Your task to perform on an android device: install app "Nova Launcher" Image 0: 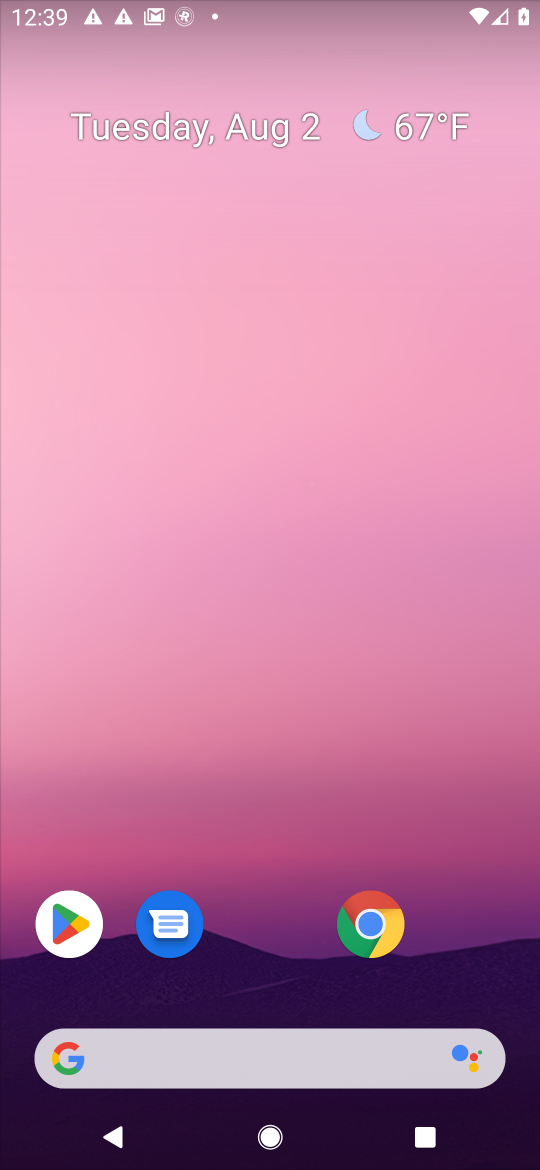
Step 0: press home button
Your task to perform on an android device: install app "Nova Launcher" Image 1: 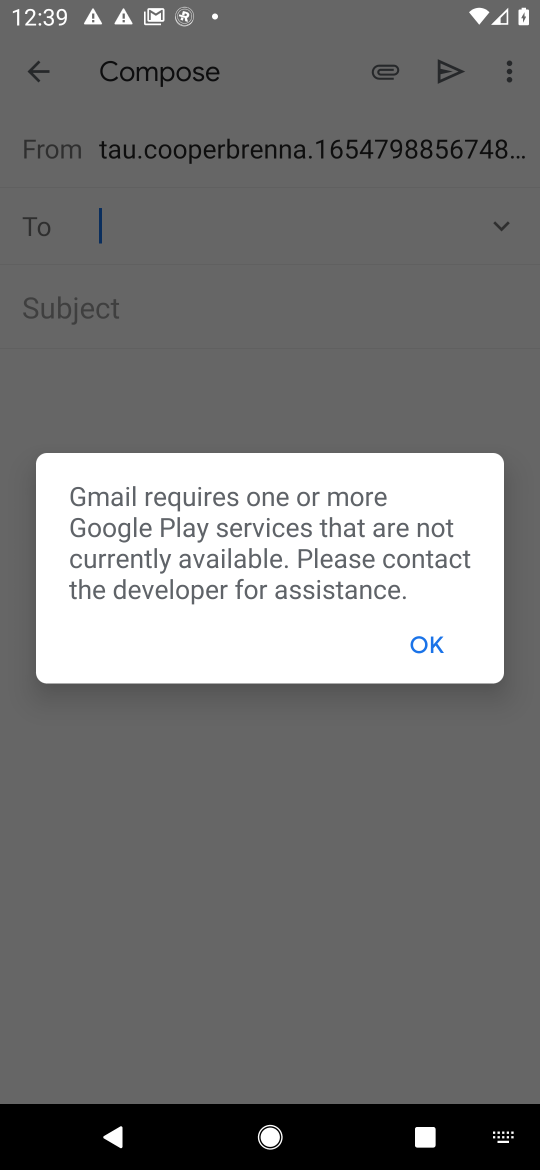
Step 1: click (63, 913)
Your task to perform on an android device: install app "Nova Launcher" Image 2: 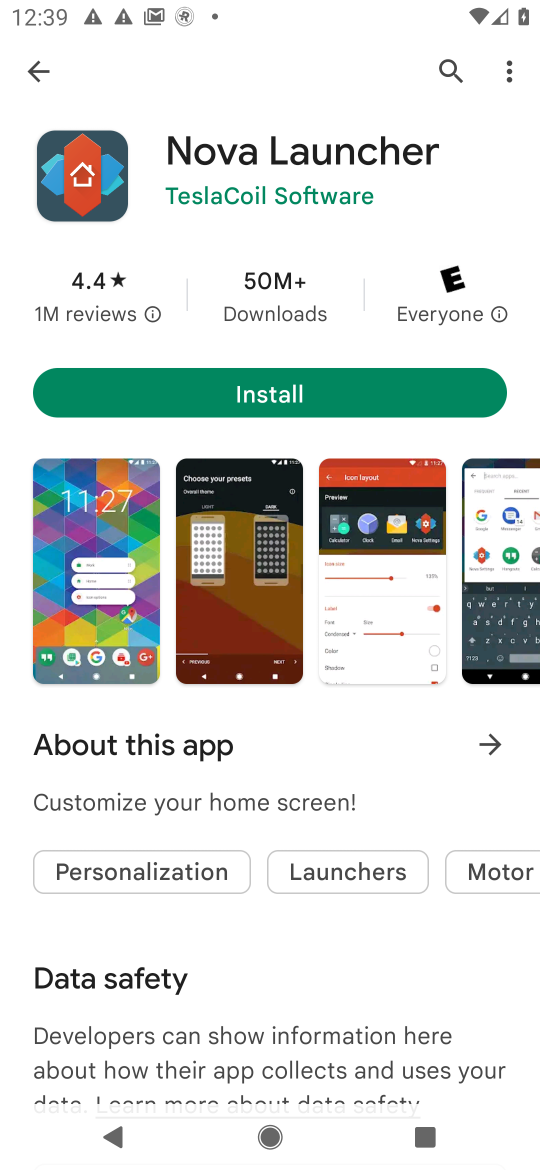
Step 2: click (298, 388)
Your task to perform on an android device: install app "Nova Launcher" Image 3: 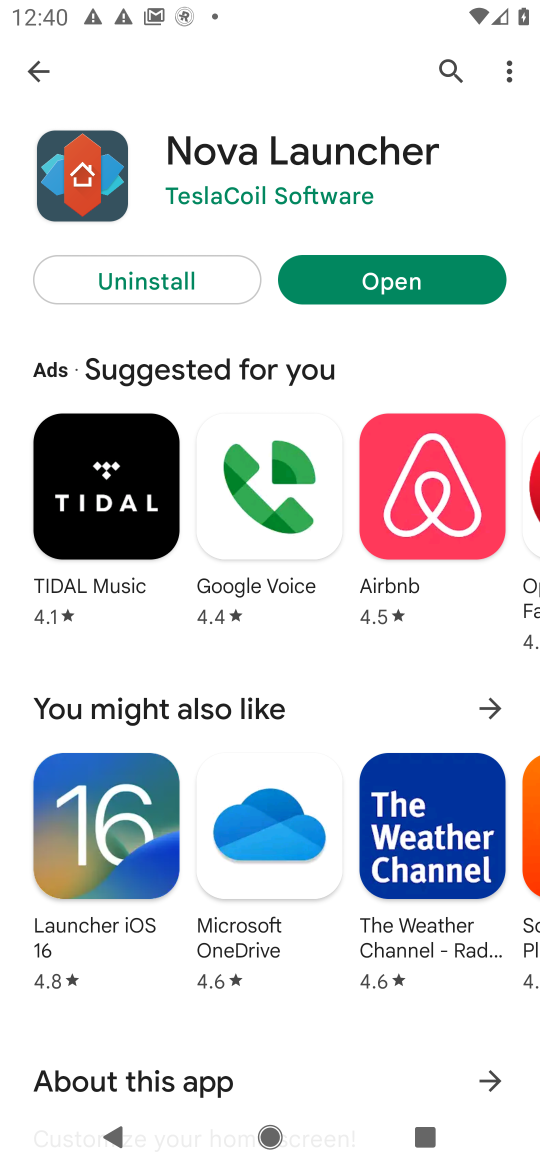
Step 3: click (380, 274)
Your task to perform on an android device: install app "Nova Launcher" Image 4: 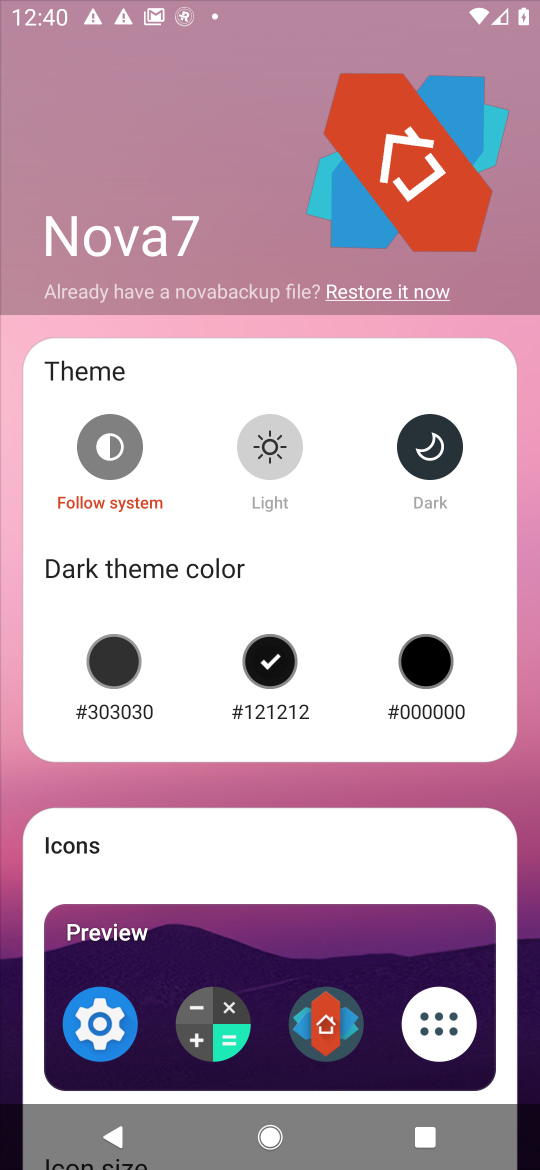
Step 4: task complete